Your task to perform on an android device: Open calendar and show me the first week of next month Image 0: 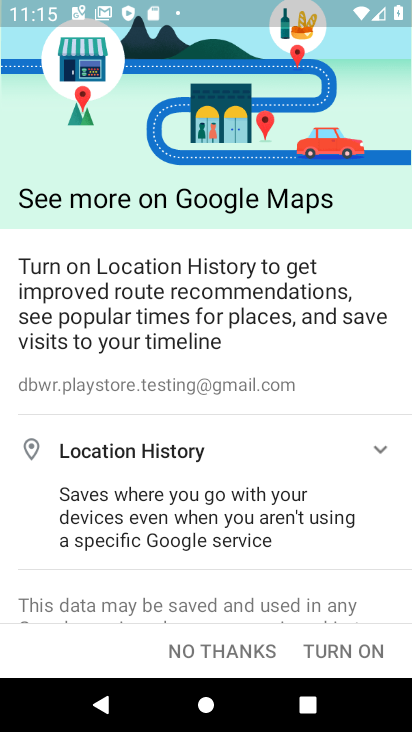
Step 0: press home button
Your task to perform on an android device: Open calendar and show me the first week of next month Image 1: 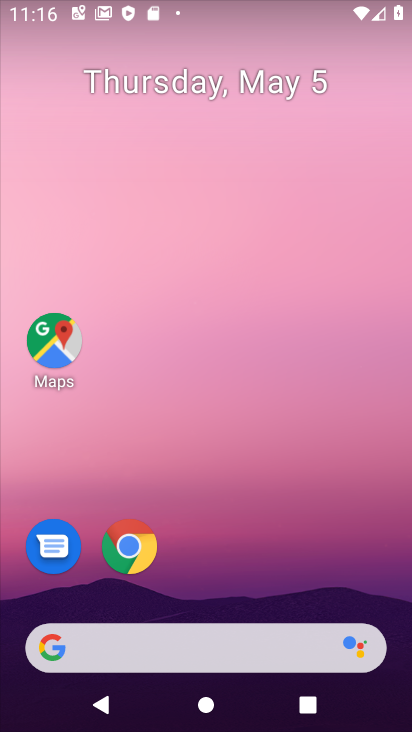
Step 1: drag from (218, 579) to (218, 54)
Your task to perform on an android device: Open calendar and show me the first week of next month Image 2: 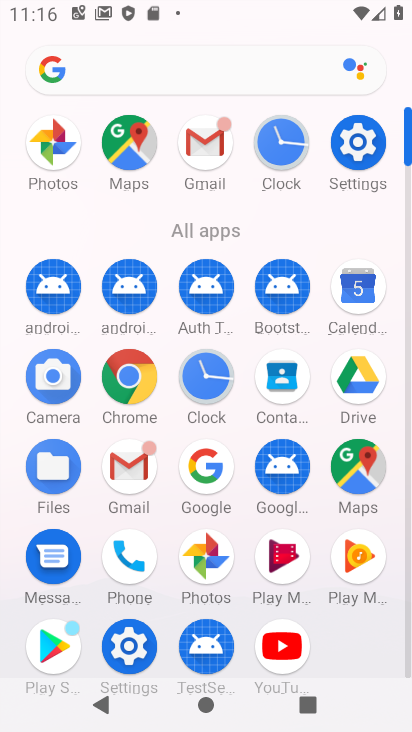
Step 2: click (361, 284)
Your task to perform on an android device: Open calendar and show me the first week of next month Image 3: 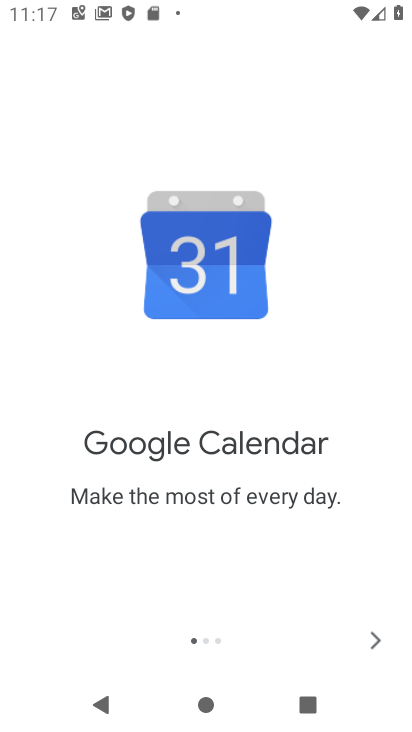
Step 3: click (379, 635)
Your task to perform on an android device: Open calendar and show me the first week of next month Image 4: 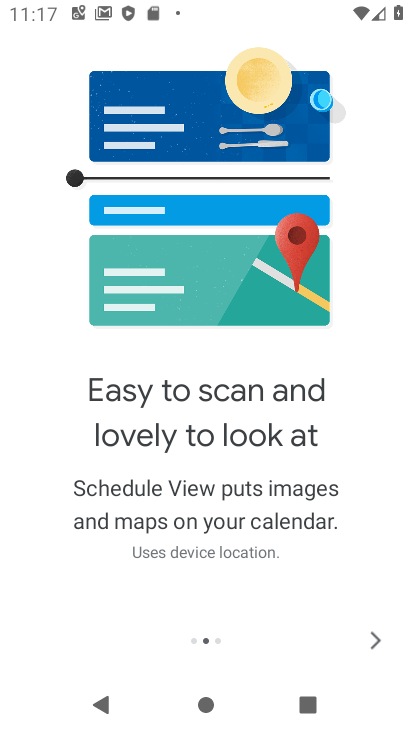
Step 4: click (379, 635)
Your task to perform on an android device: Open calendar and show me the first week of next month Image 5: 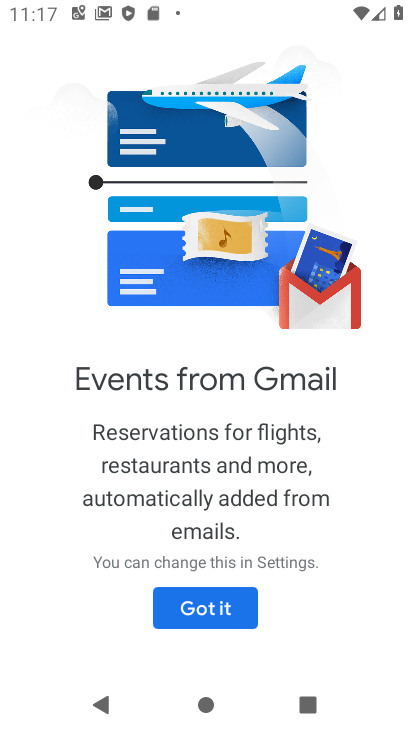
Step 5: click (190, 603)
Your task to perform on an android device: Open calendar and show me the first week of next month Image 6: 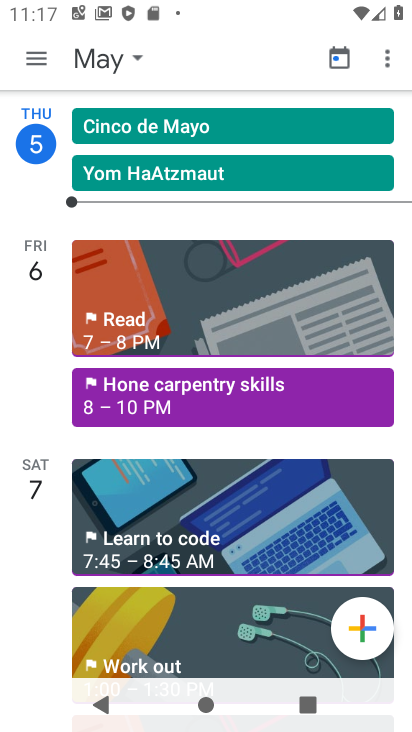
Step 6: click (124, 49)
Your task to perform on an android device: Open calendar and show me the first week of next month Image 7: 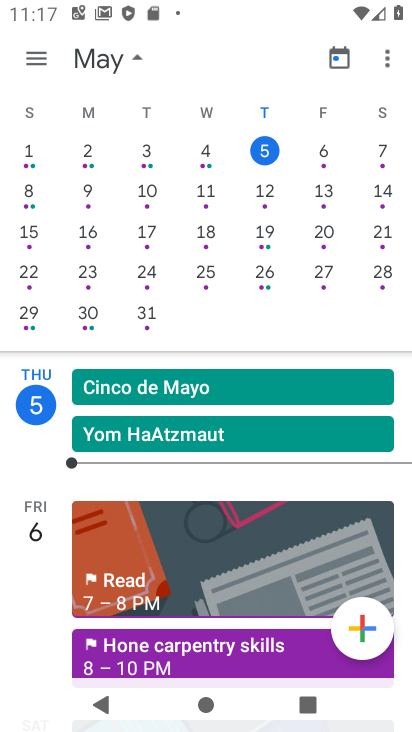
Step 7: drag from (335, 205) to (0, 140)
Your task to perform on an android device: Open calendar and show me the first week of next month Image 8: 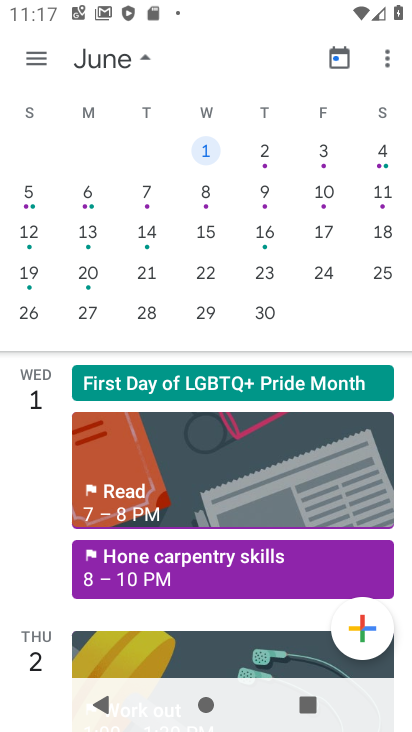
Step 8: click (33, 50)
Your task to perform on an android device: Open calendar and show me the first week of next month Image 9: 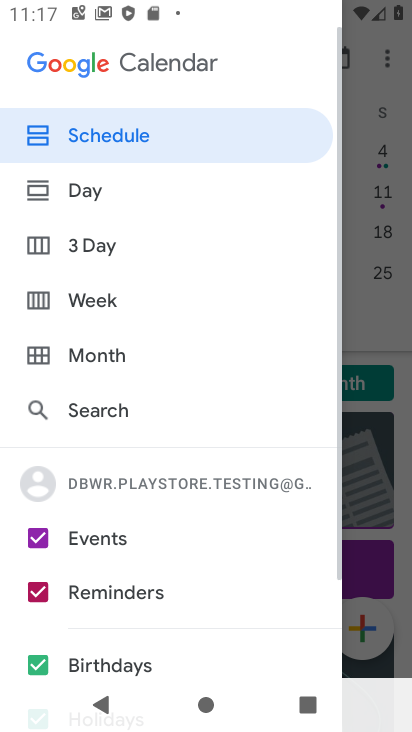
Step 9: click (109, 296)
Your task to perform on an android device: Open calendar and show me the first week of next month Image 10: 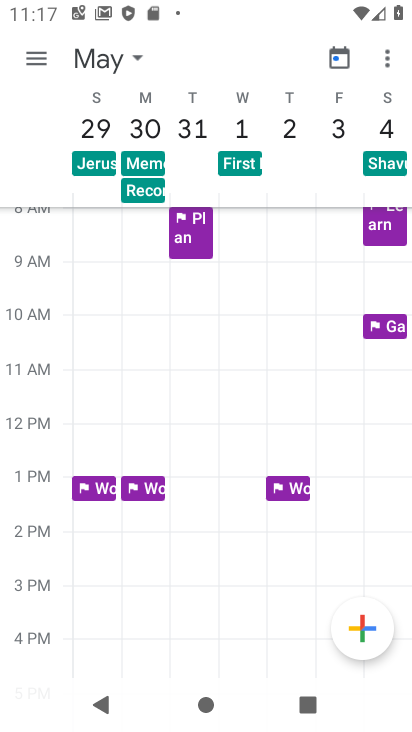
Step 10: task complete